Your task to perform on an android device: What's the weather? Image 0: 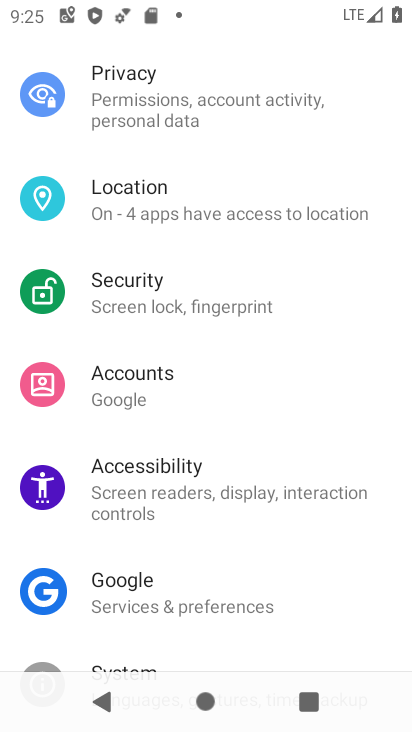
Step 0: press home button
Your task to perform on an android device: What's the weather? Image 1: 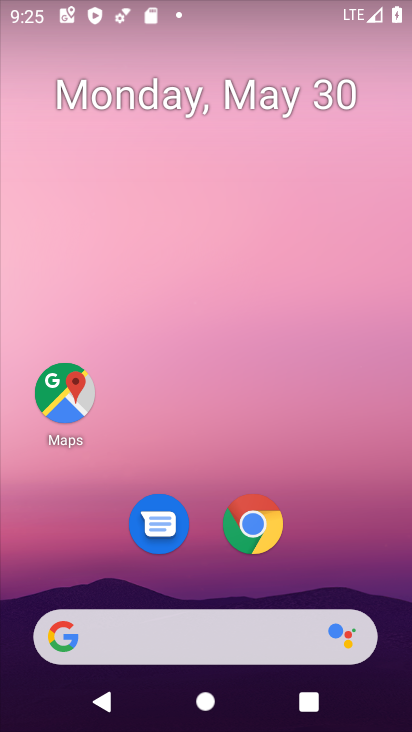
Step 1: click (157, 647)
Your task to perform on an android device: What's the weather? Image 2: 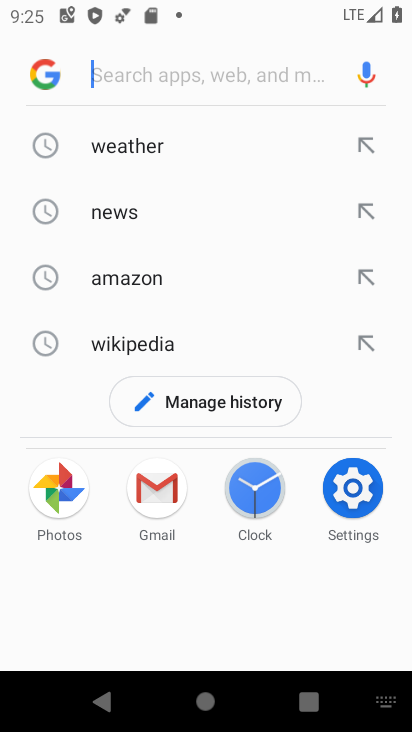
Step 2: click (106, 143)
Your task to perform on an android device: What's the weather? Image 3: 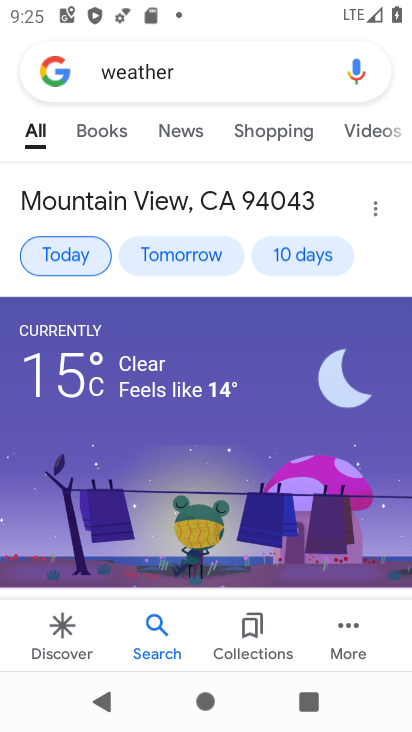
Step 3: click (91, 251)
Your task to perform on an android device: What's the weather? Image 4: 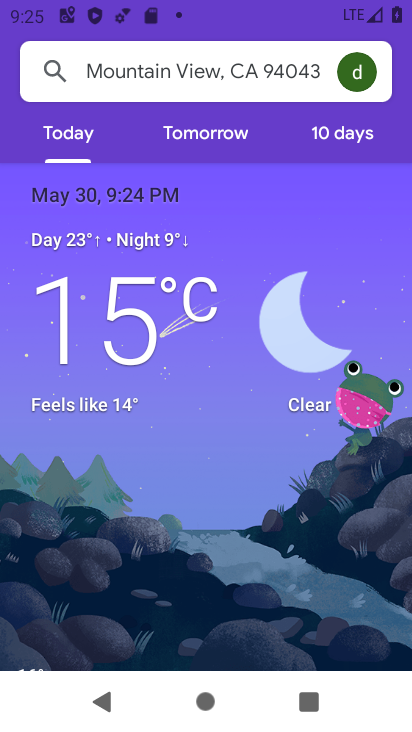
Step 4: task complete